Your task to perform on an android device: change the upload size in google photos Image 0: 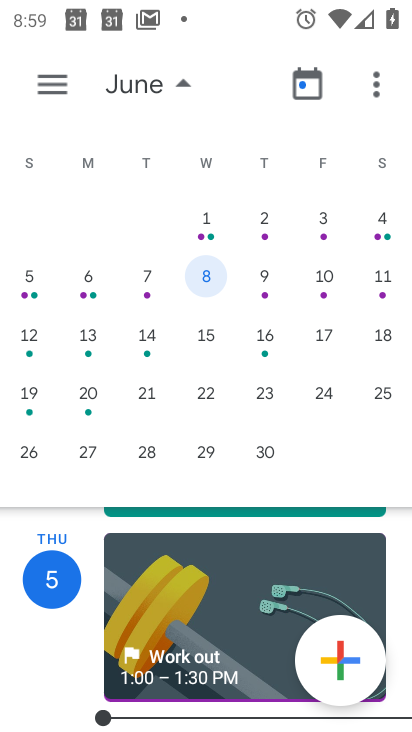
Step 0: press home button
Your task to perform on an android device: change the upload size in google photos Image 1: 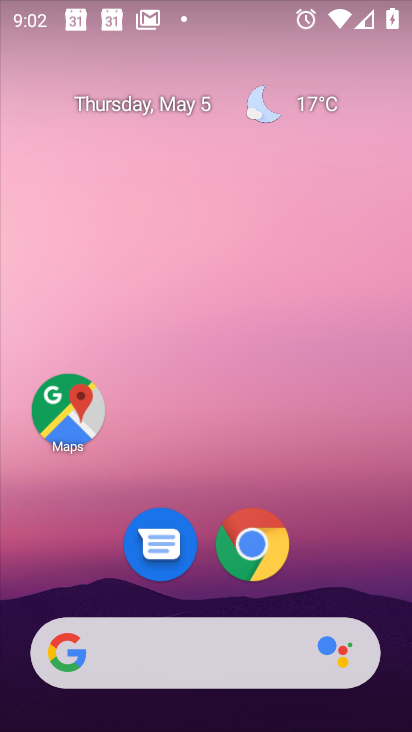
Step 1: drag from (376, 579) to (363, 193)
Your task to perform on an android device: change the upload size in google photos Image 2: 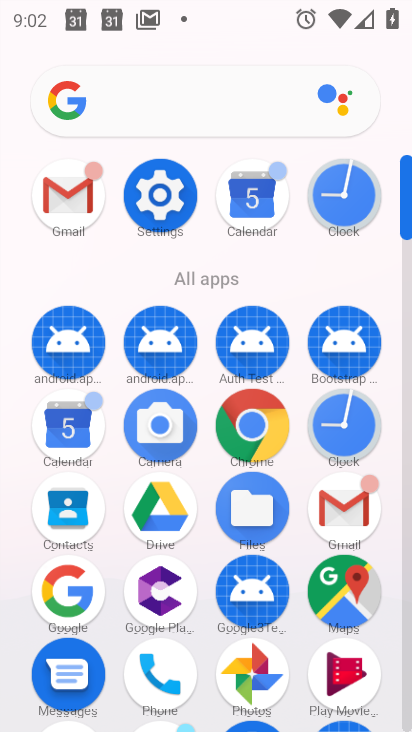
Step 2: click (250, 654)
Your task to perform on an android device: change the upload size in google photos Image 3: 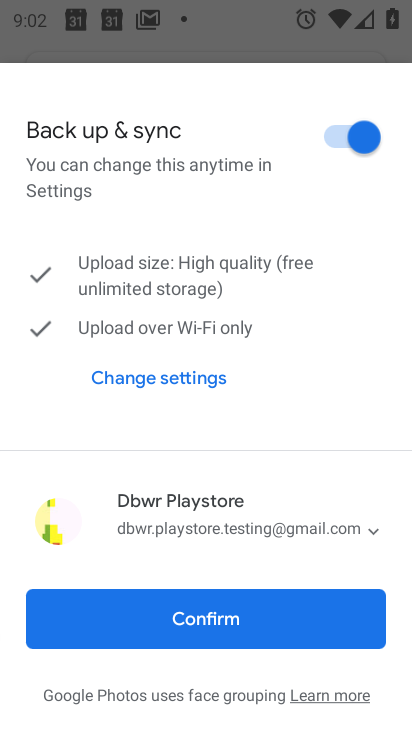
Step 3: click (168, 630)
Your task to perform on an android device: change the upload size in google photos Image 4: 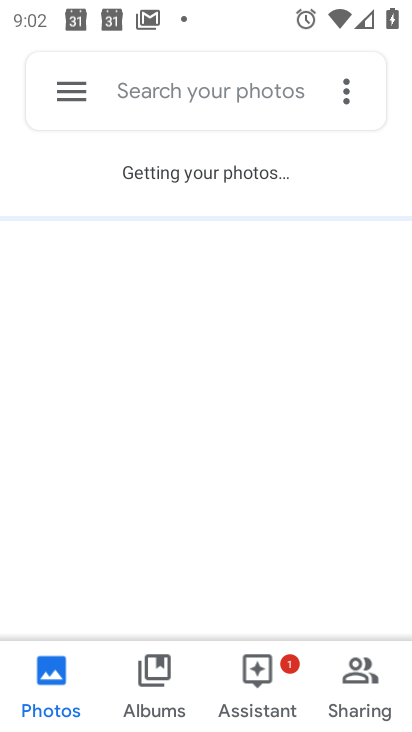
Step 4: click (73, 93)
Your task to perform on an android device: change the upload size in google photos Image 5: 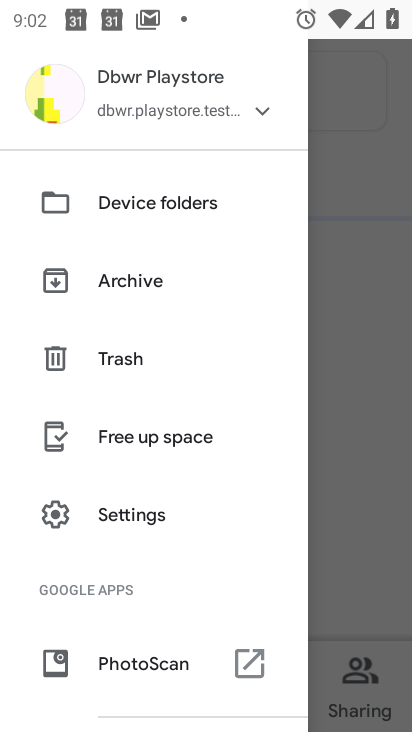
Step 5: click (115, 503)
Your task to perform on an android device: change the upload size in google photos Image 6: 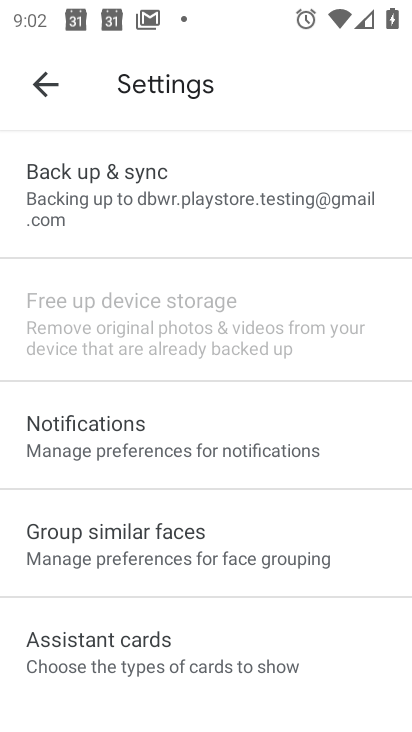
Step 6: drag from (101, 543) to (138, 332)
Your task to perform on an android device: change the upload size in google photos Image 7: 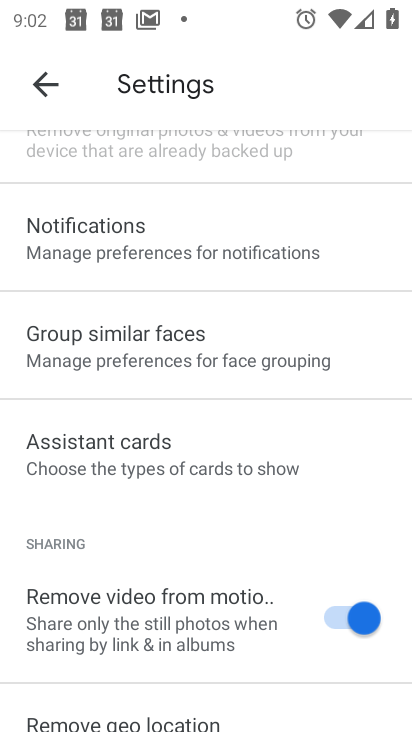
Step 7: drag from (173, 344) to (189, 537)
Your task to perform on an android device: change the upload size in google photos Image 8: 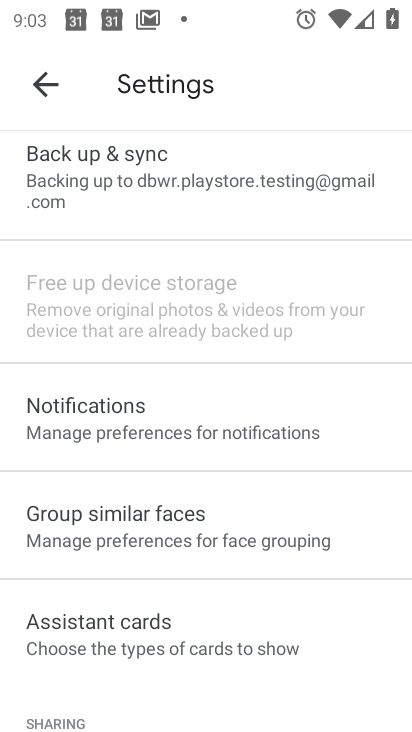
Step 8: click (191, 207)
Your task to perform on an android device: change the upload size in google photos Image 9: 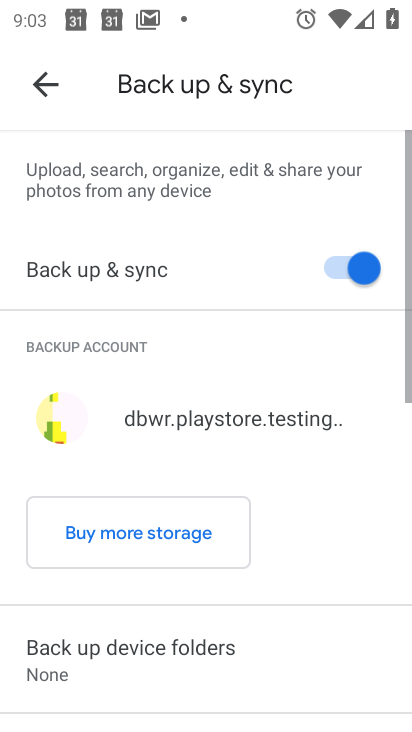
Step 9: drag from (181, 615) to (221, 315)
Your task to perform on an android device: change the upload size in google photos Image 10: 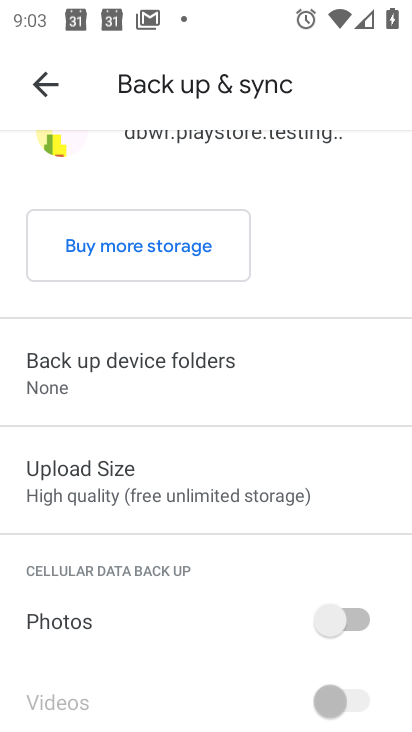
Step 10: click (194, 518)
Your task to perform on an android device: change the upload size in google photos Image 11: 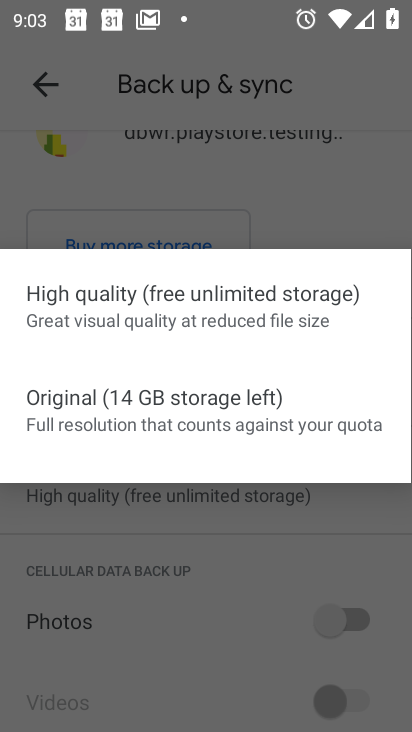
Step 11: click (113, 434)
Your task to perform on an android device: change the upload size in google photos Image 12: 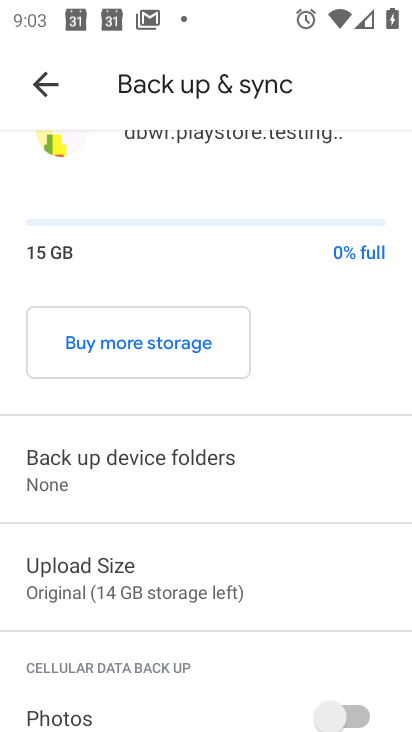
Step 12: task complete